Your task to perform on an android device: stop showing notifications on the lock screen Image 0: 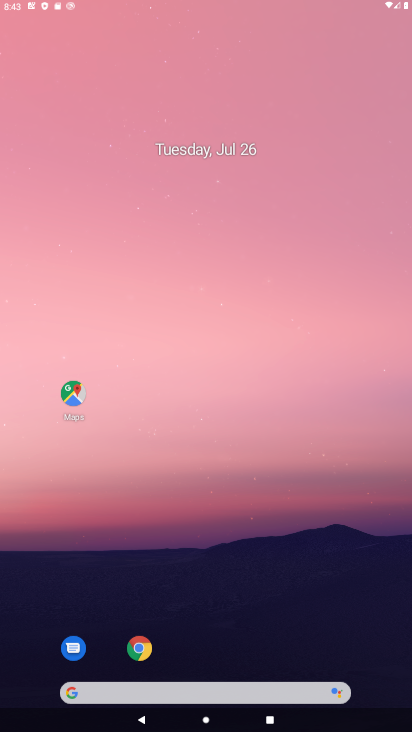
Step 0: click (283, 279)
Your task to perform on an android device: stop showing notifications on the lock screen Image 1: 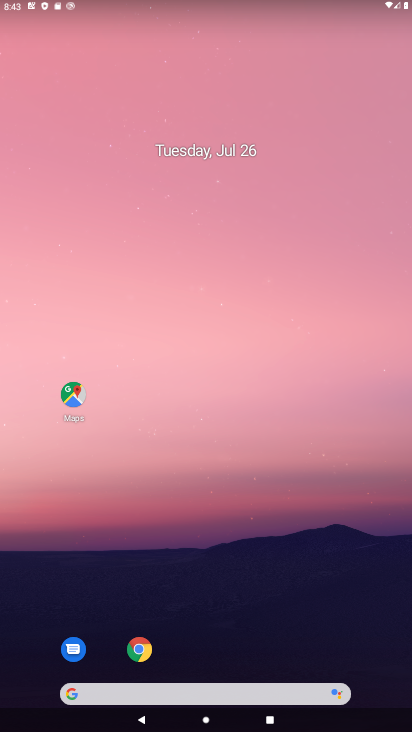
Step 1: press home button
Your task to perform on an android device: stop showing notifications on the lock screen Image 2: 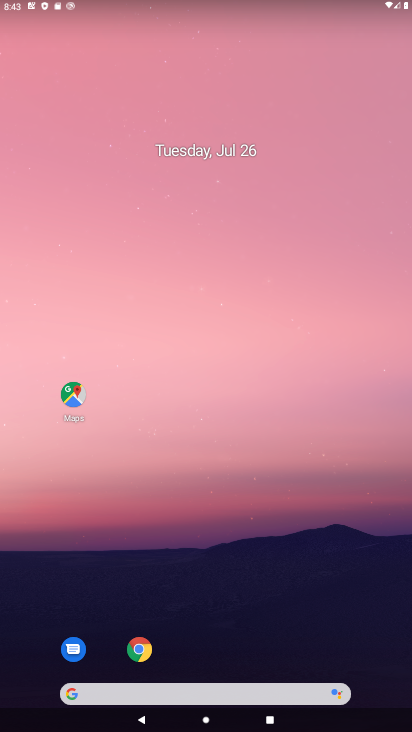
Step 2: drag from (249, 580) to (248, 238)
Your task to perform on an android device: stop showing notifications on the lock screen Image 3: 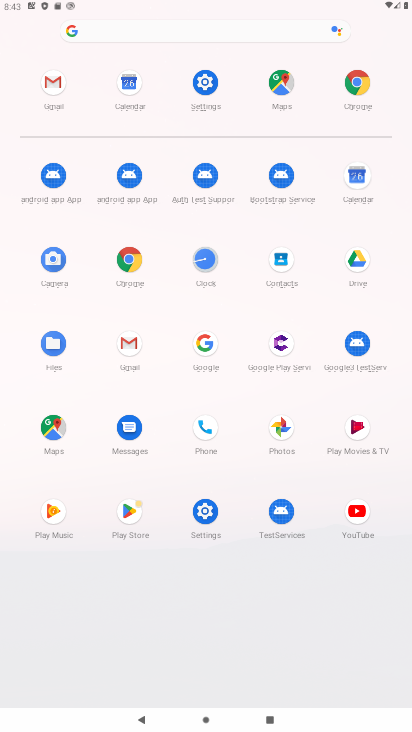
Step 3: click (212, 514)
Your task to perform on an android device: stop showing notifications on the lock screen Image 4: 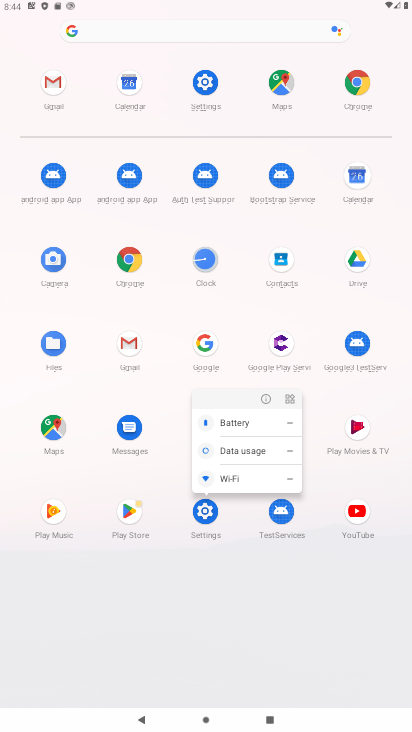
Step 4: click (263, 397)
Your task to perform on an android device: stop showing notifications on the lock screen Image 5: 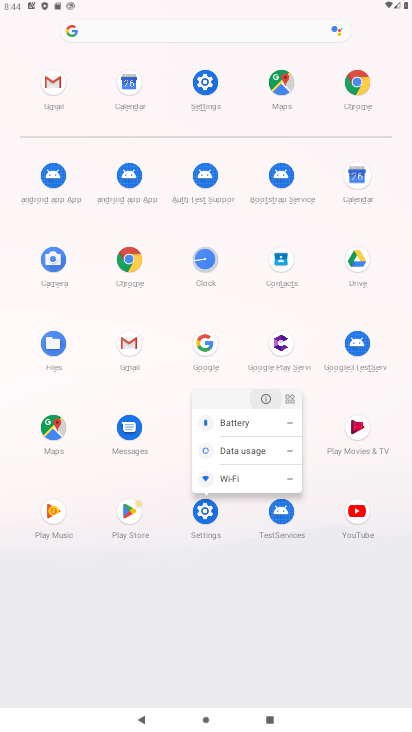
Step 5: click (263, 396)
Your task to perform on an android device: stop showing notifications on the lock screen Image 6: 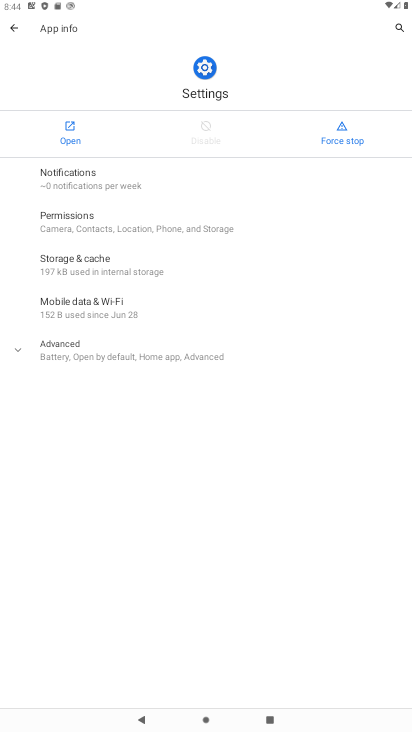
Step 6: click (75, 117)
Your task to perform on an android device: stop showing notifications on the lock screen Image 7: 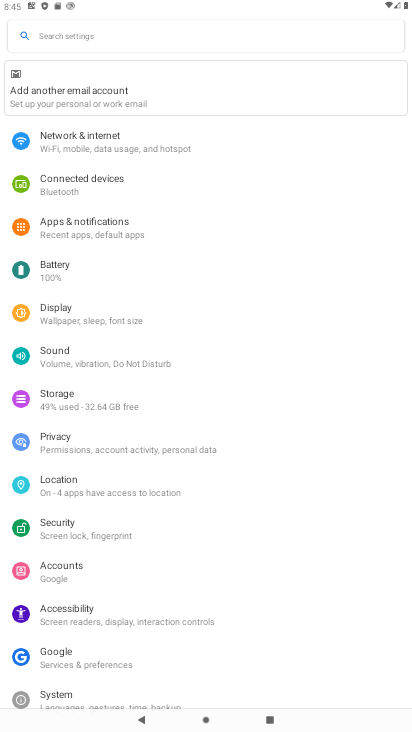
Step 7: click (96, 208)
Your task to perform on an android device: stop showing notifications on the lock screen Image 8: 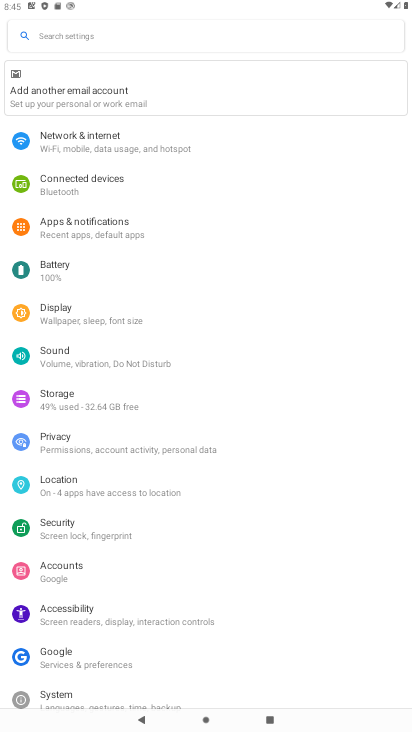
Step 8: click (96, 208)
Your task to perform on an android device: stop showing notifications on the lock screen Image 9: 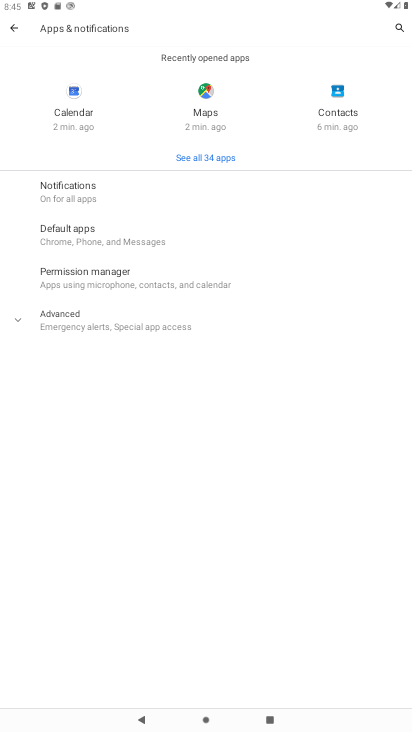
Step 9: click (101, 189)
Your task to perform on an android device: stop showing notifications on the lock screen Image 10: 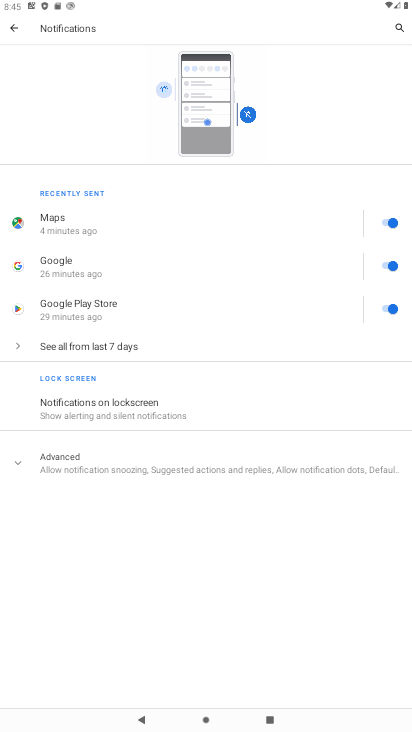
Step 10: click (102, 397)
Your task to perform on an android device: stop showing notifications on the lock screen Image 11: 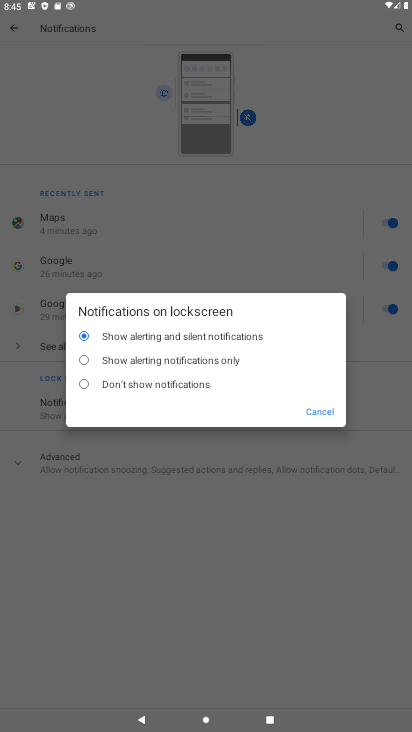
Step 11: click (86, 379)
Your task to perform on an android device: stop showing notifications on the lock screen Image 12: 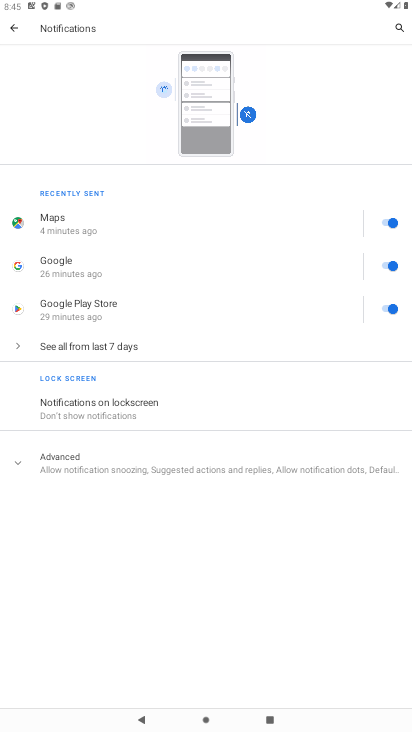
Step 12: task complete